Your task to perform on an android device: Is it going to rain today? Image 0: 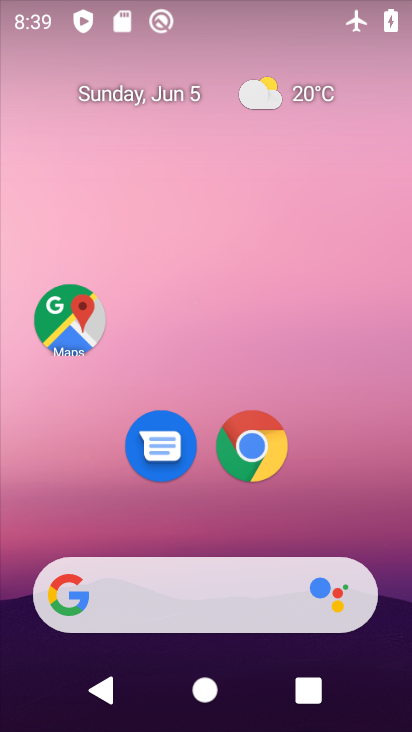
Step 0: drag from (206, 525) to (157, 116)
Your task to perform on an android device: Is it going to rain today? Image 1: 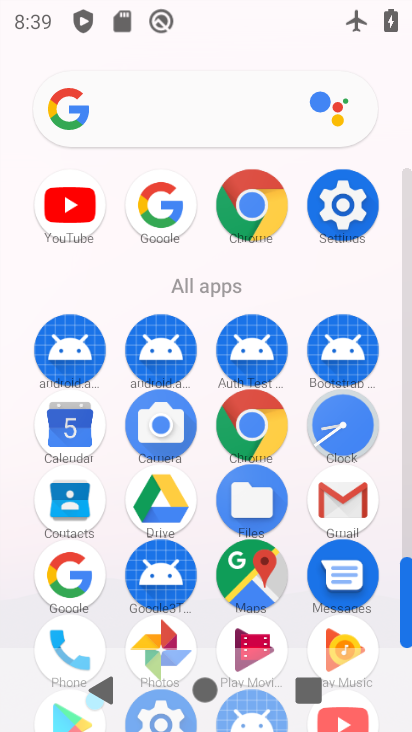
Step 1: click (81, 558)
Your task to perform on an android device: Is it going to rain today? Image 2: 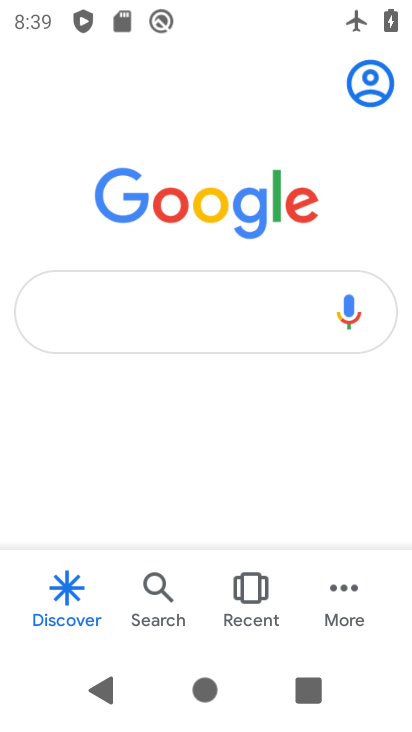
Step 2: click (132, 321)
Your task to perform on an android device: Is it going to rain today? Image 3: 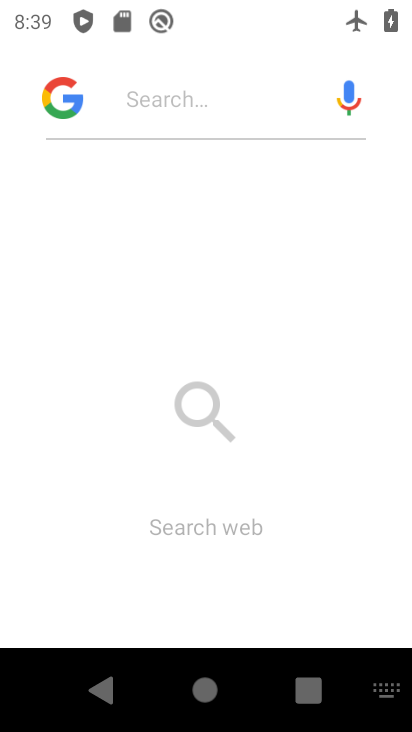
Step 3: click (161, 111)
Your task to perform on an android device: Is it going to rain today? Image 4: 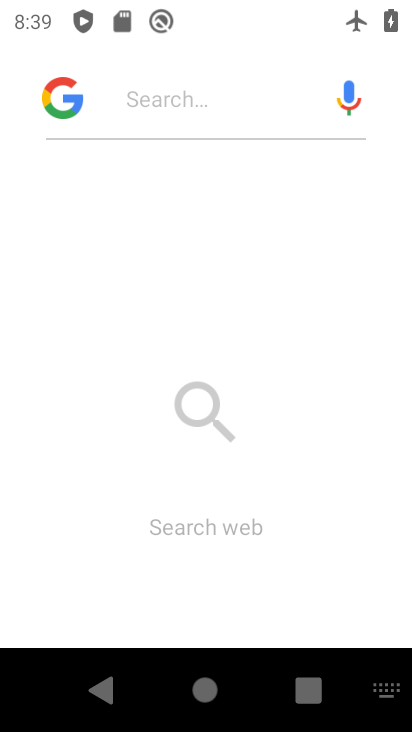
Step 4: type "weather"
Your task to perform on an android device: Is it going to rain today? Image 5: 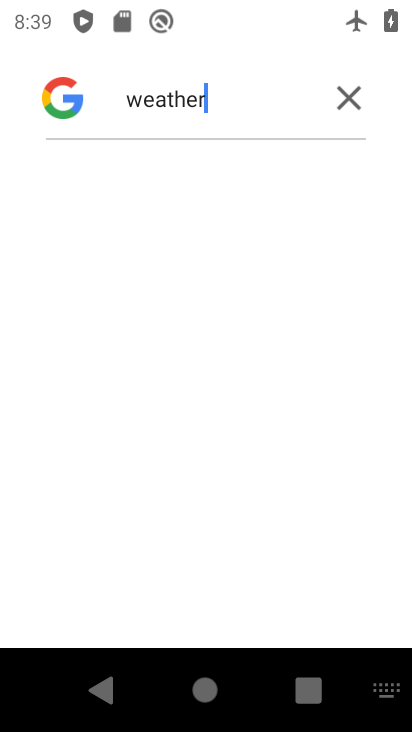
Step 5: task complete